Your task to perform on an android device: change your default location settings in chrome Image 0: 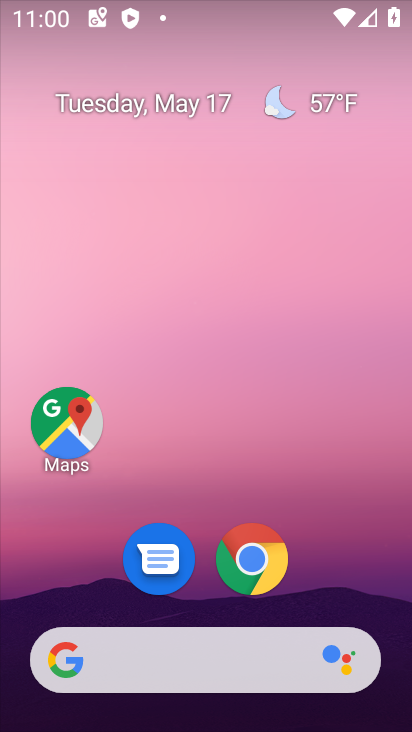
Step 0: click (261, 579)
Your task to perform on an android device: change your default location settings in chrome Image 1: 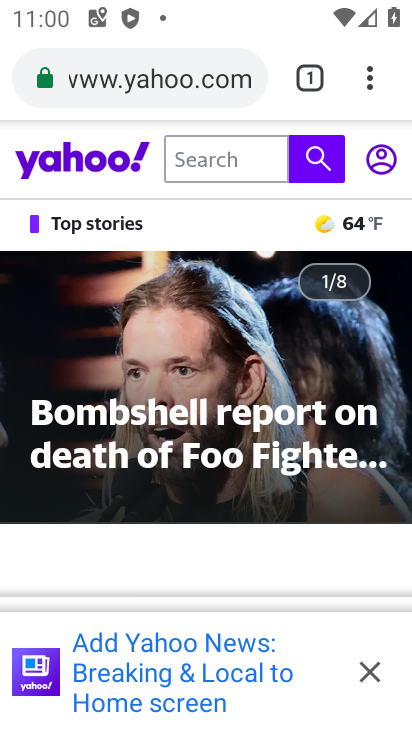
Step 1: click (366, 80)
Your task to perform on an android device: change your default location settings in chrome Image 2: 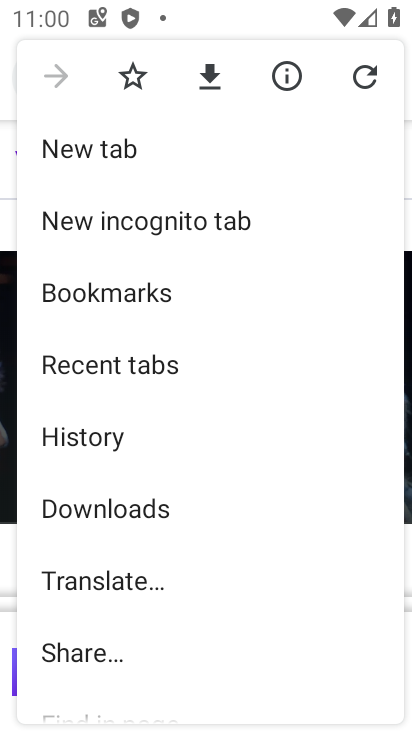
Step 2: drag from (96, 577) to (111, 224)
Your task to perform on an android device: change your default location settings in chrome Image 3: 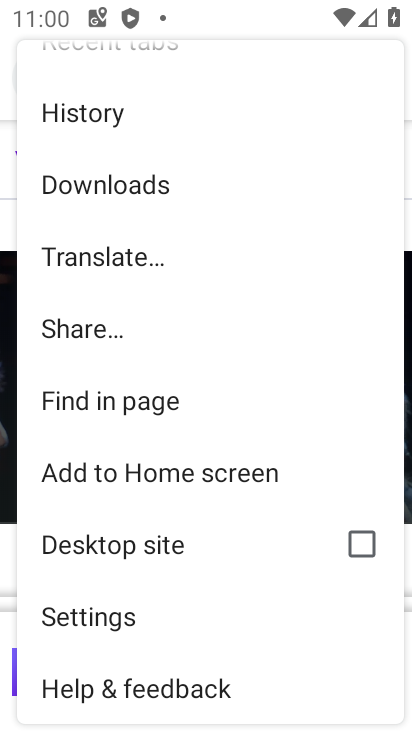
Step 3: click (108, 615)
Your task to perform on an android device: change your default location settings in chrome Image 4: 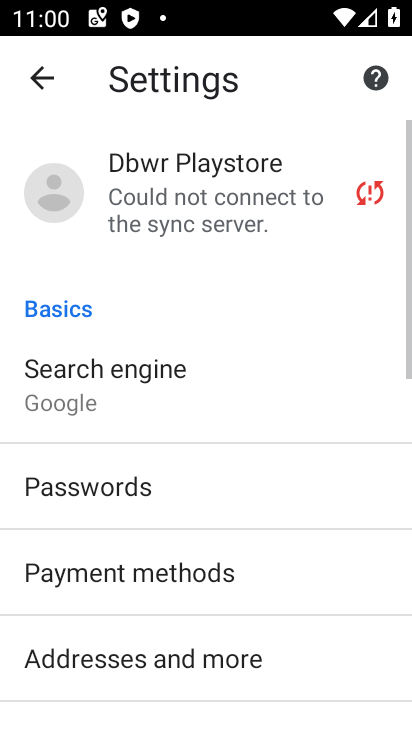
Step 4: drag from (109, 577) to (100, 225)
Your task to perform on an android device: change your default location settings in chrome Image 5: 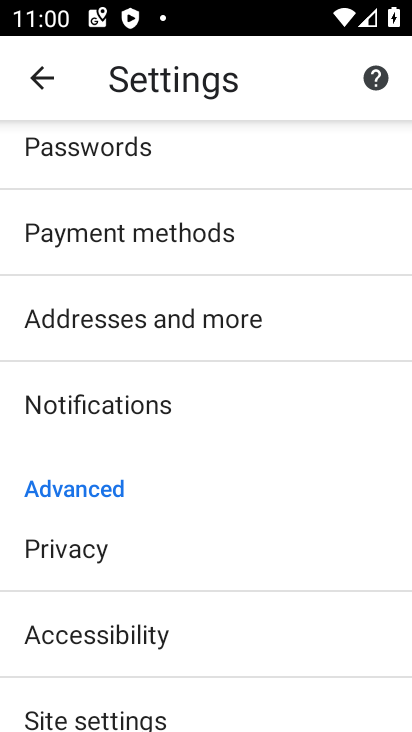
Step 5: drag from (71, 576) to (61, 311)
Your task to perform on an android device: change your default location settings in chrome Image 6: 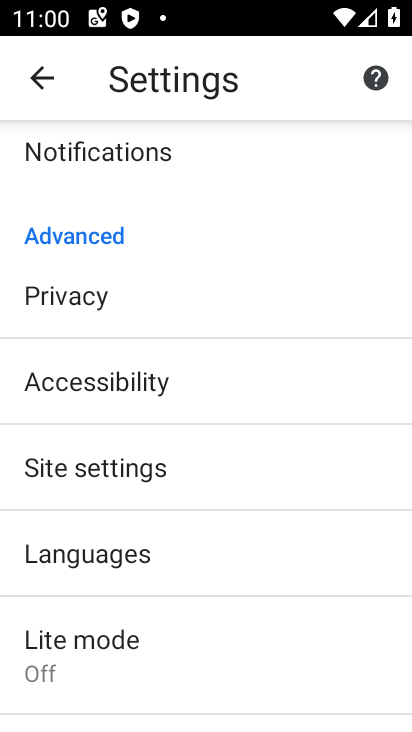
Step 6: click (29, 499)
Your task to perform on an android device: change your default location settings in chrome Image 7: 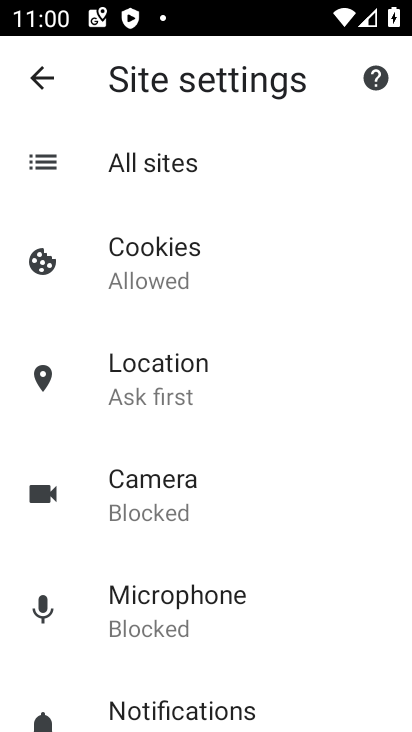
Step 7: click (113, 405)
Your task to perform on an android device: change your default location settings in chrome Image 8: 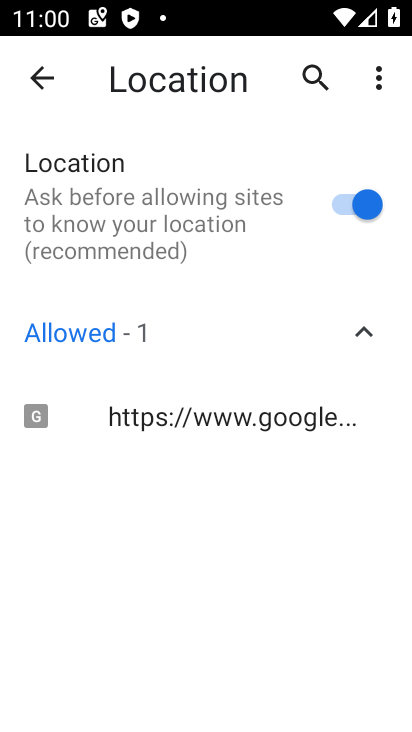
Step 8: click (352, 230)
Your task to perform on an android device: change your default location settings in chrome Image 9: 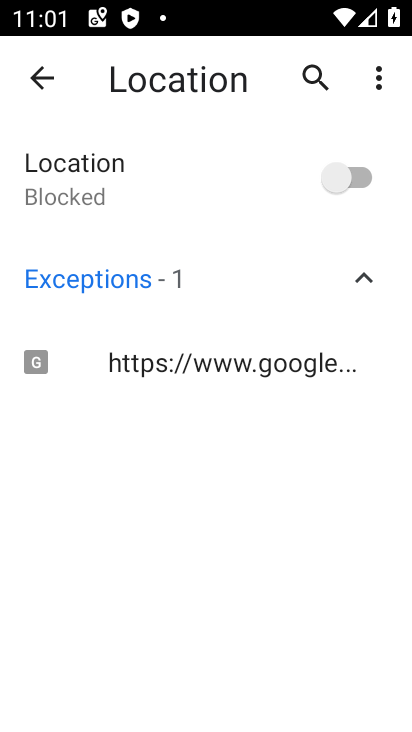
Step 9: task complete